Your task to perform on an android device: Empty the shopping cart on newegg.com. Search for "amazon basics triple a" on newegg.com, select the first entry, and add it to the cart. Image 0: 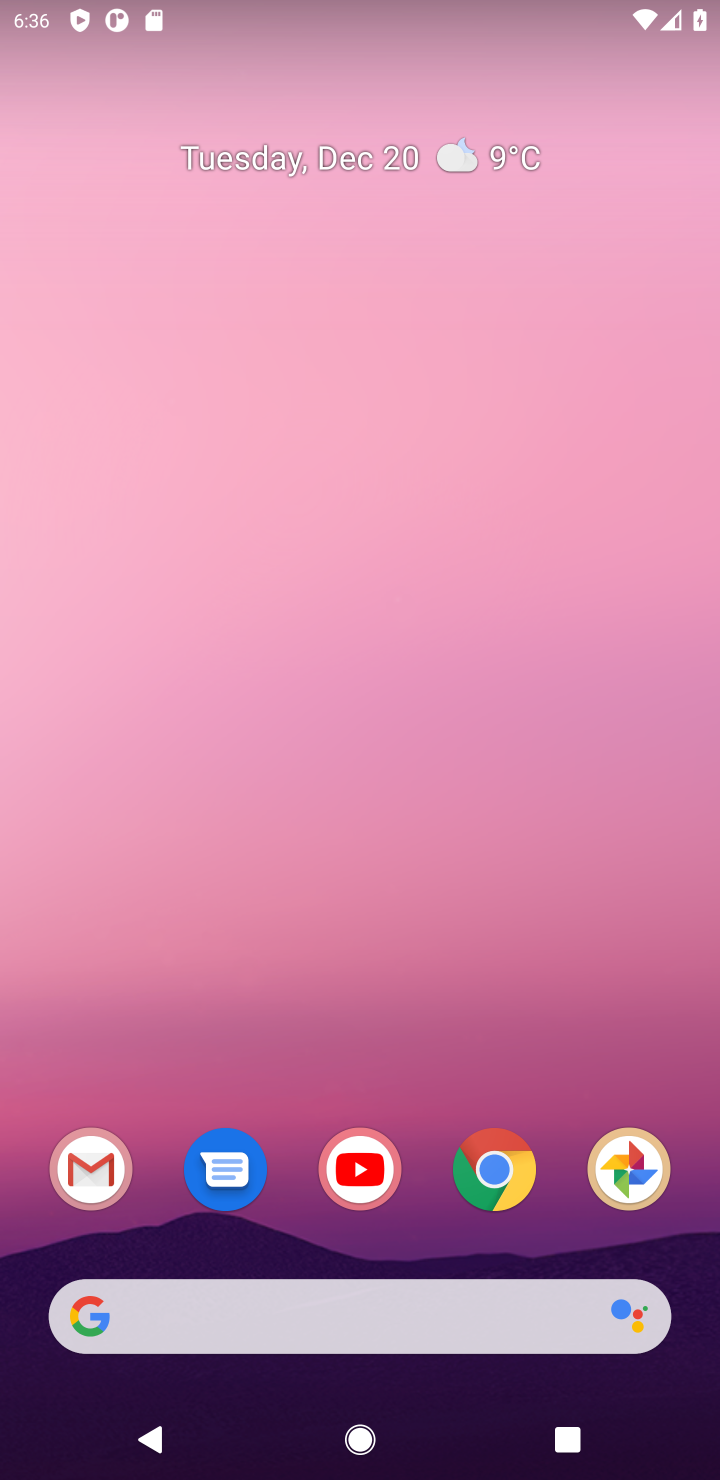
Step 0: click (384, 179)
Your task to perform on an android device: Empty the shopping cart on newegg.com. Search for "amazon basics triple a" on newegg.com, select the first entry, and add it to the cart. Image 1: 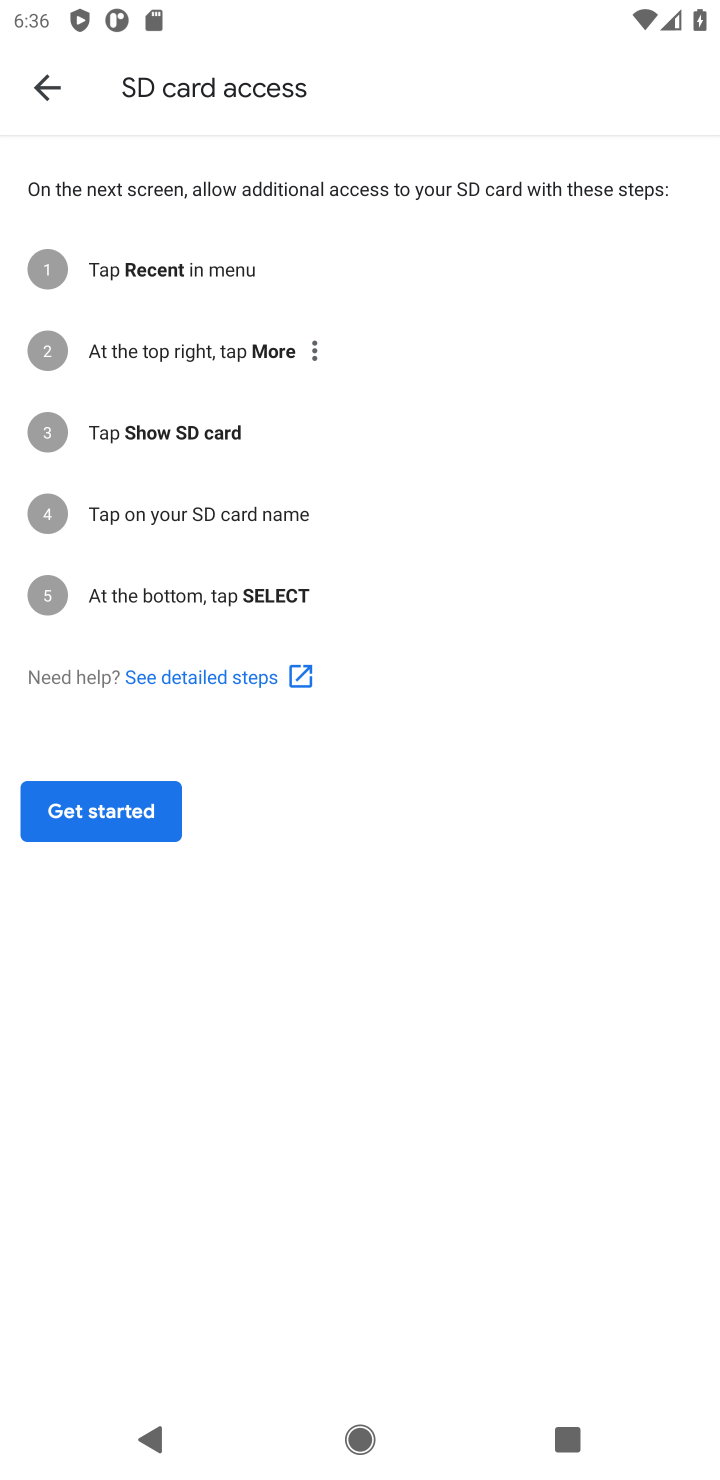
Step 1: press home button
Your task to perform on an android device: Empty the shopping cart on newegg.com. Search for "amazon basics triple a" on newegg.com, select the first entry, and add it to the cart. Image 2: 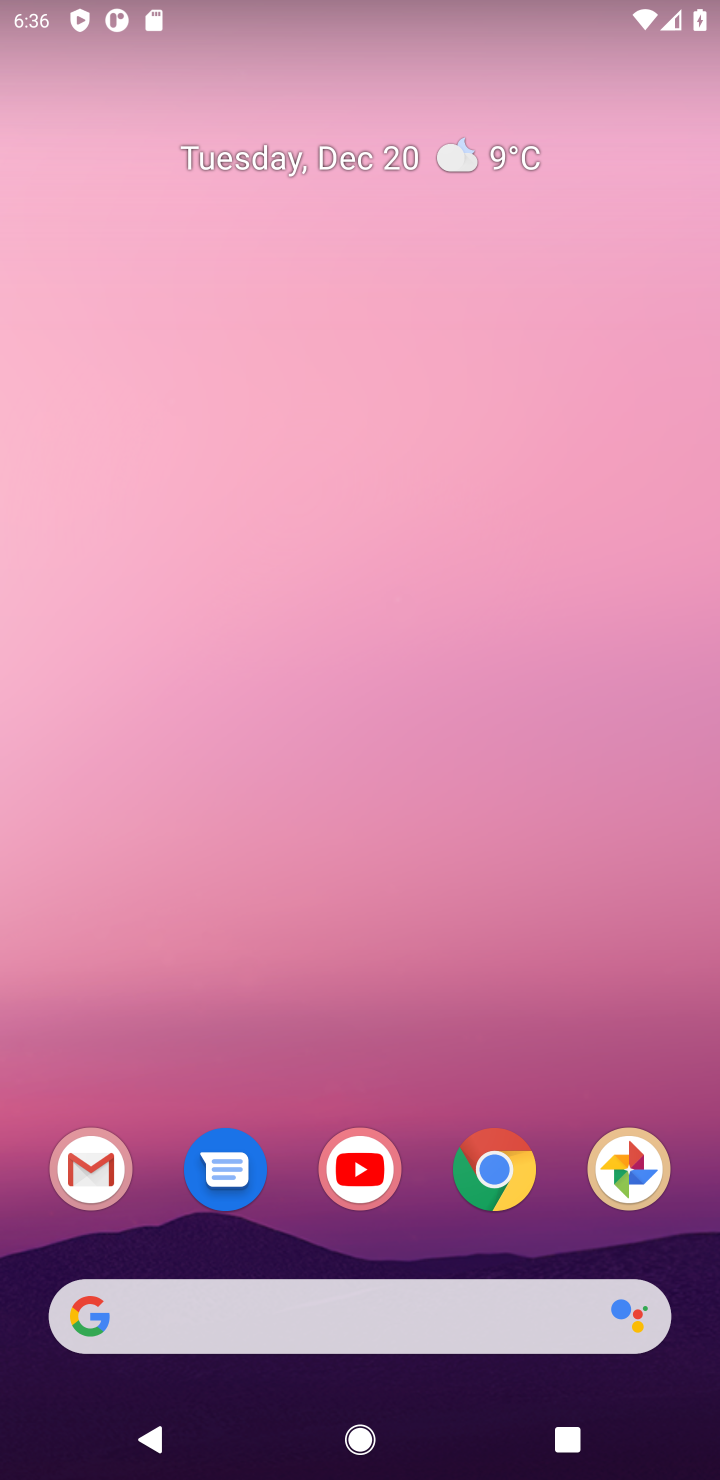
Step 2: click (452, 1294)
Your task to perform on an android device: Empty the shopping cart on newegg.com. Search for "amazon basics triple a" on newegg.com, select the first entry, and add it to the cart. Image 3: 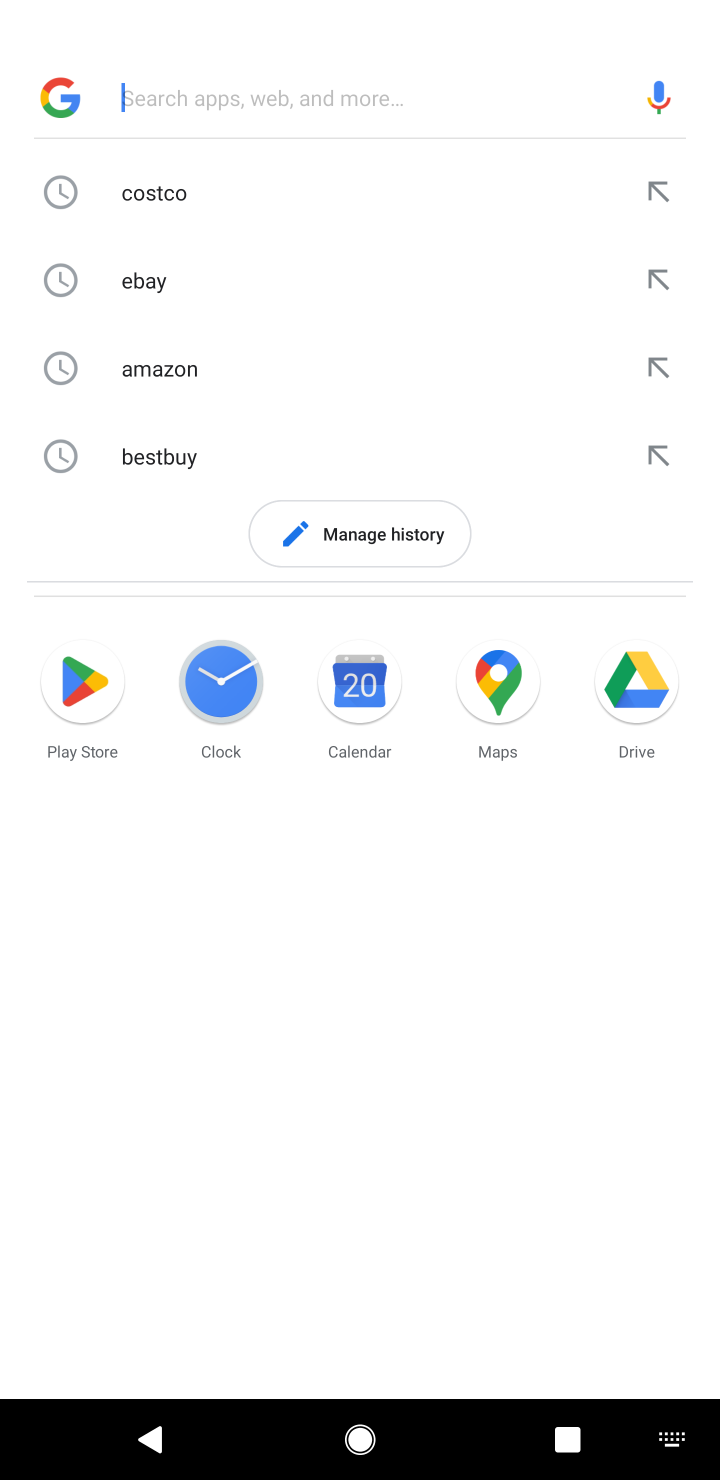
Step 3: type "newegg"
Your task to perform on an android device: Empty the shopping cart on newegg.com. Search for "amazon basics triple a" on newegg.com, select the first entry, and add it to the cart. Image 4: 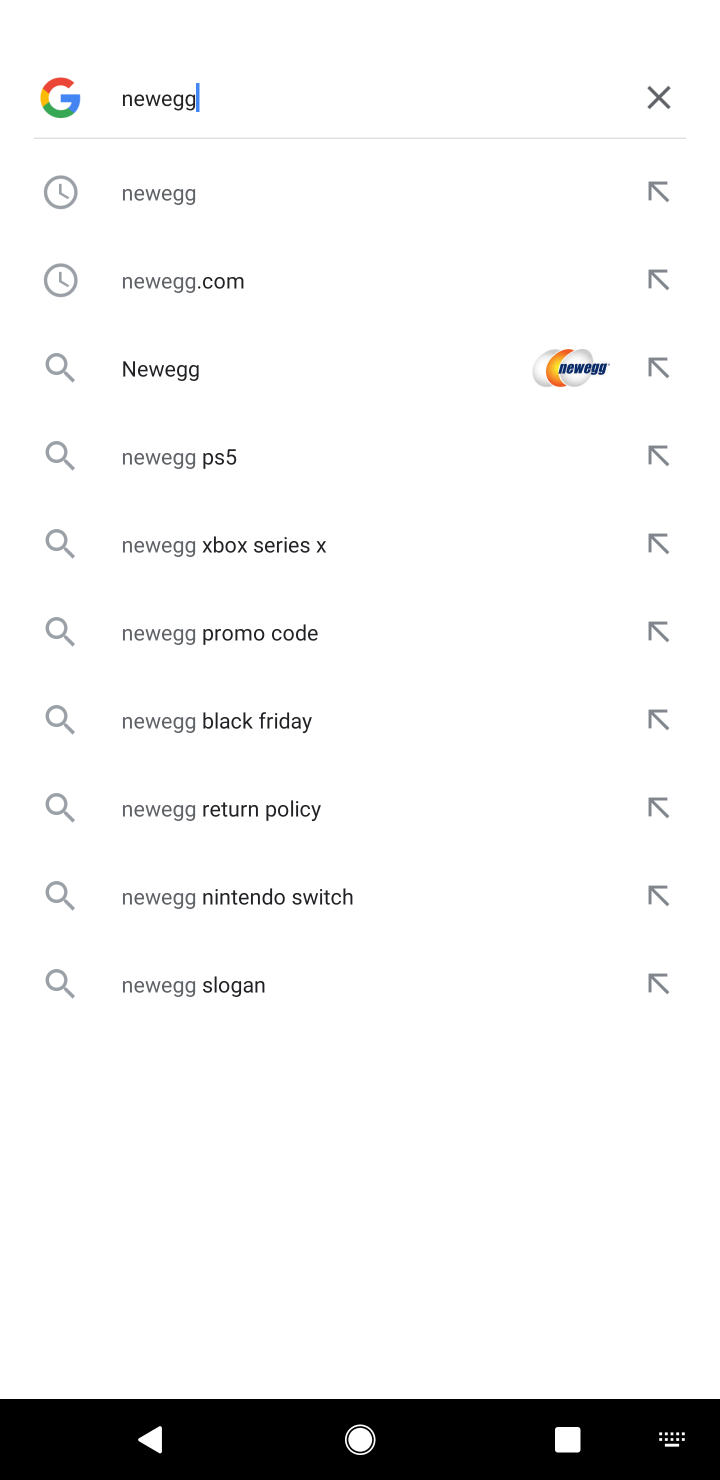
Step 4: click (156, 191)
Your task to perform on an android device: Empty the shopping cart on newegg.com. Search for "amazon basics triple a" on newegg.com, select the first entry, and add it to the cart. Image 5: 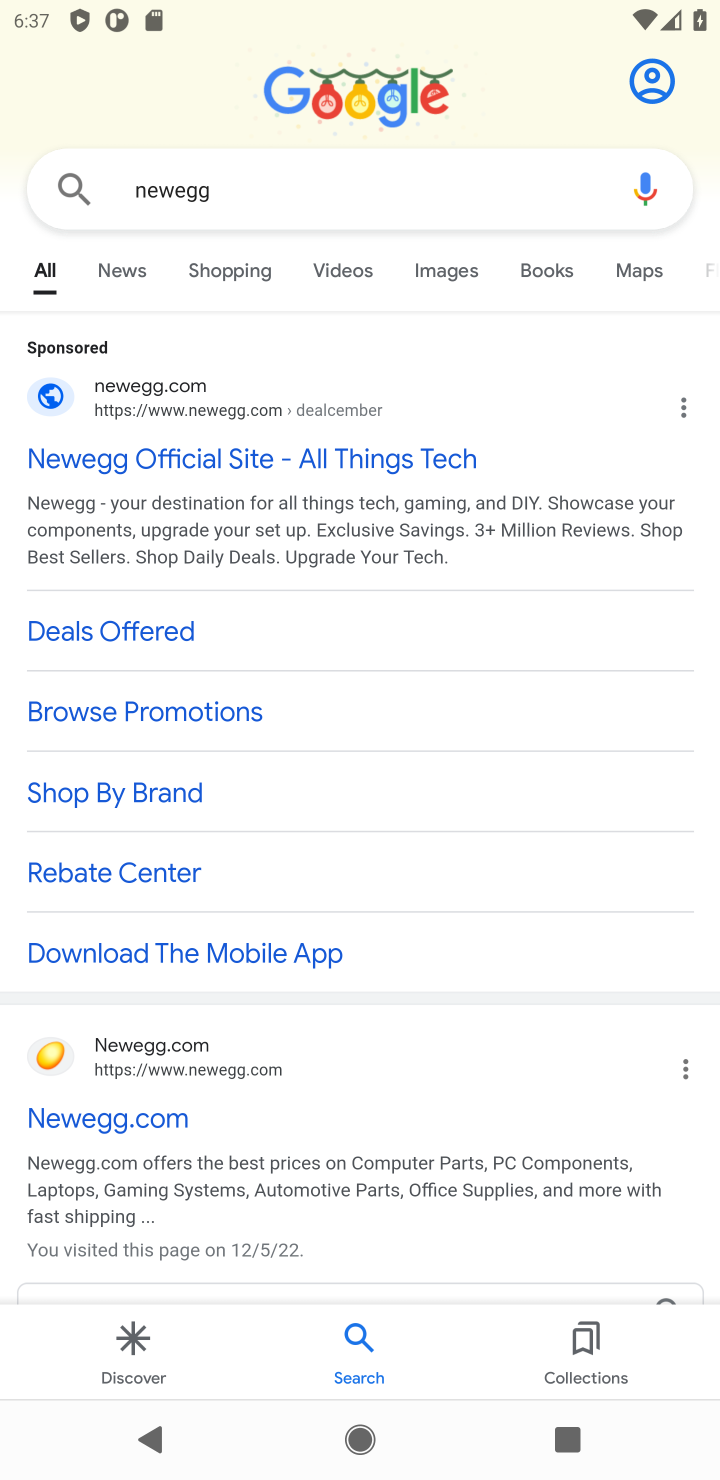
Step 5: click (232, 448)
Your task to perform on an android device: Empty the shopping cart on newegg.com. Search for "amazon basics triple a" on newegg.com, select the first entry, and add it to the cart. Image 6: 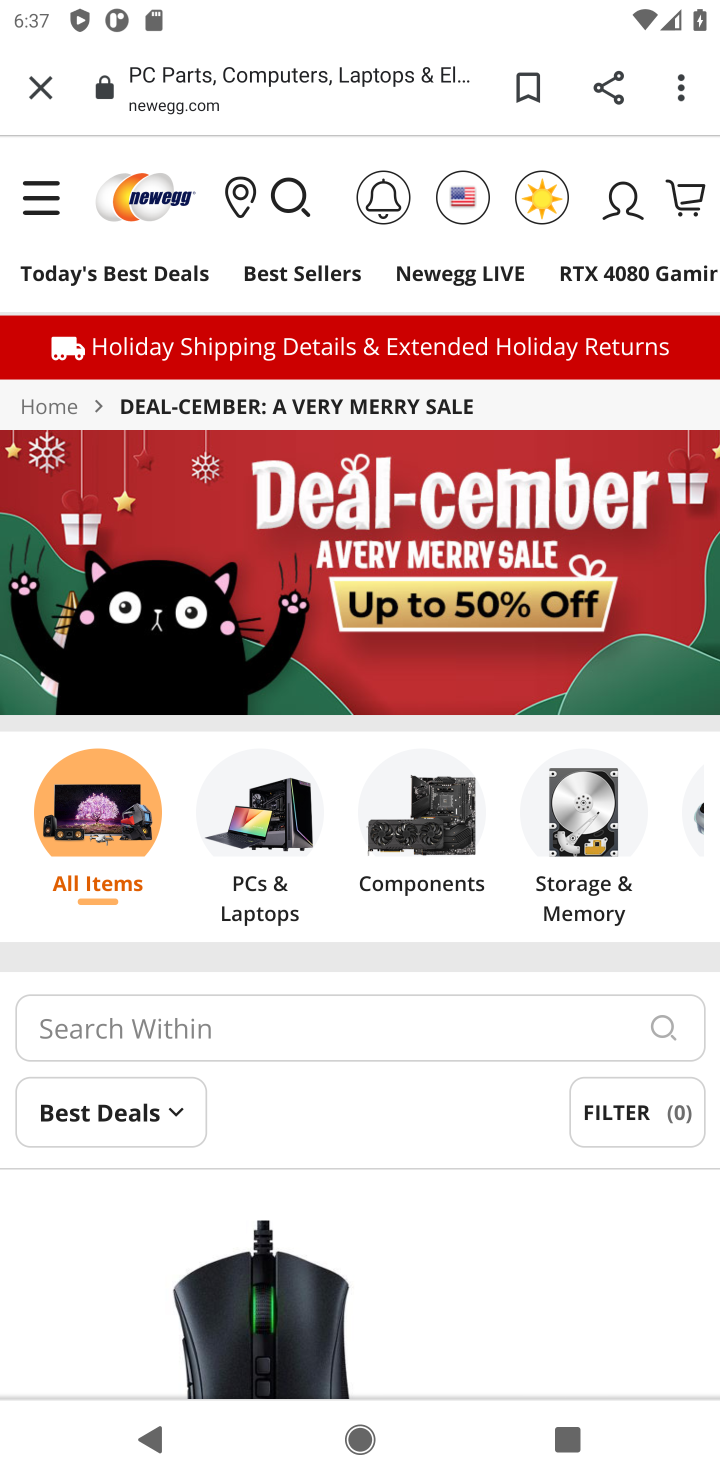
Step 6: click (361, 195)
Your task to perform on an android device: Empty the shopping cart on newegg.com. Search for "amazon basics triple a" on newegg.com, select the first entry, and add it to the cart. Image 7: 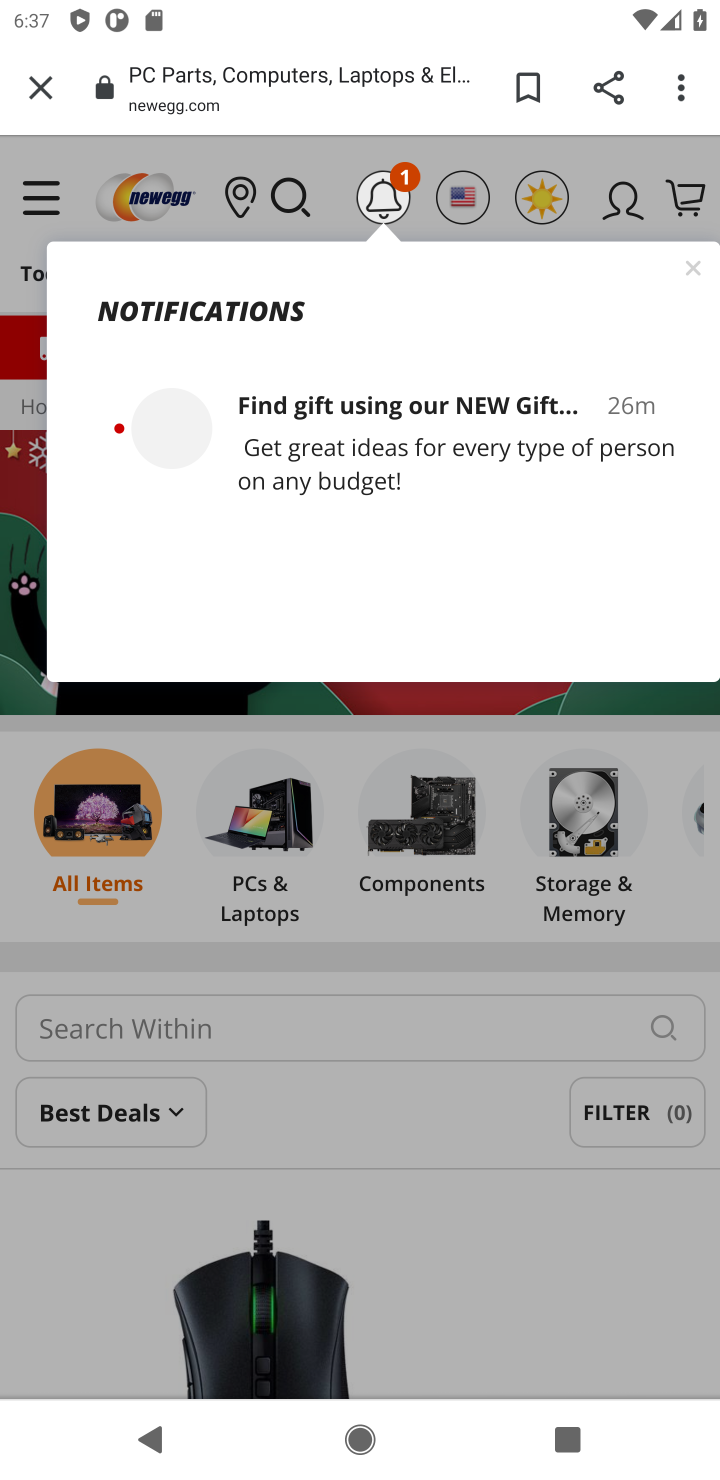
Step 7: click (296, 185)
Your task to perform on an android device: Empty the shopping cart on newegg.com. Search for "amazon basics triple a" on newegg.com, select the first entry, and add it to the cart. Image 8: 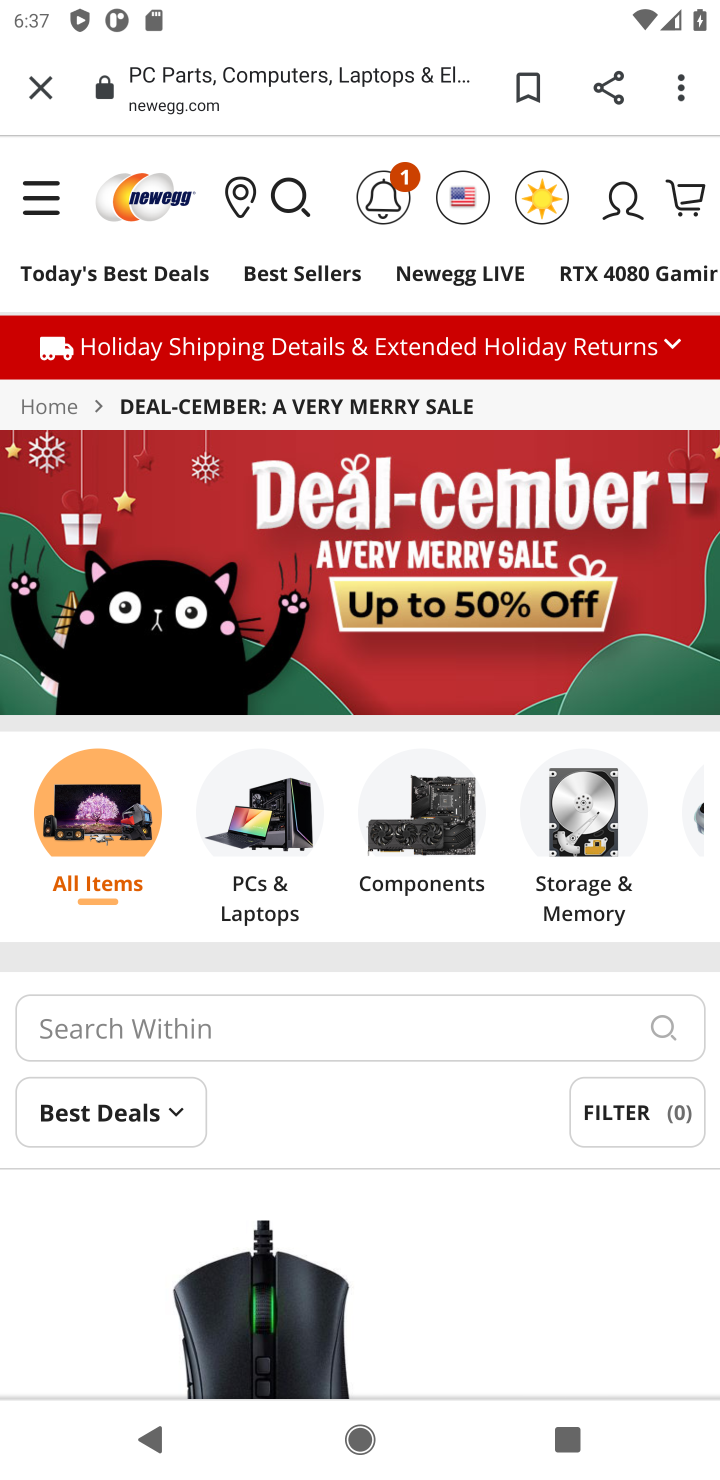
Step 8: click (296, 185)
Your task to perform on an android device: Empty the shopping cart on newegg.com. Search for "amazon basics triple a" on newegg.com, select the first entry, and add it to the cart. Image 9: 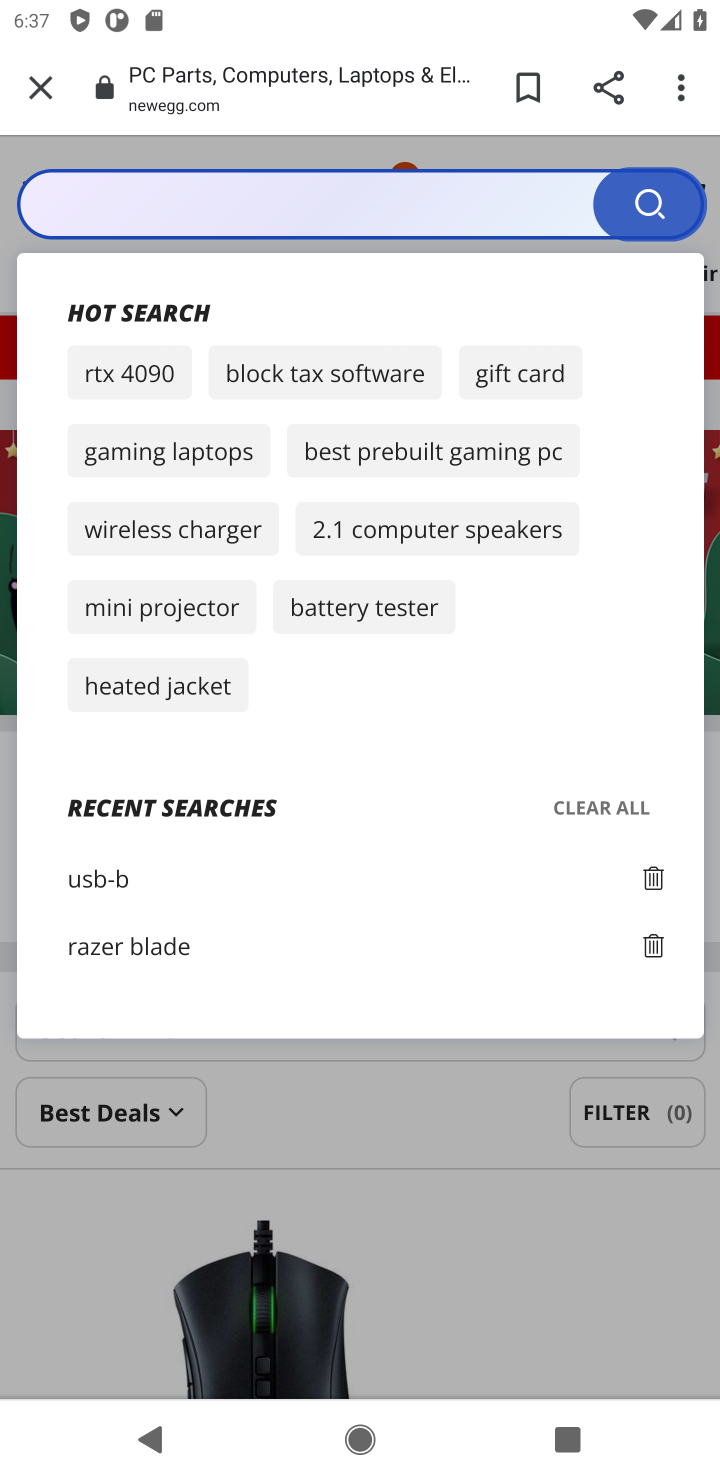
Step 9: type "amazon basics triple a"
Your task to perform on an android device: Empty the shopping cart on newegg.com. Search for "amazon basics triple a" on newegg.com, select the first entry, and add it to the cart. Image 10: 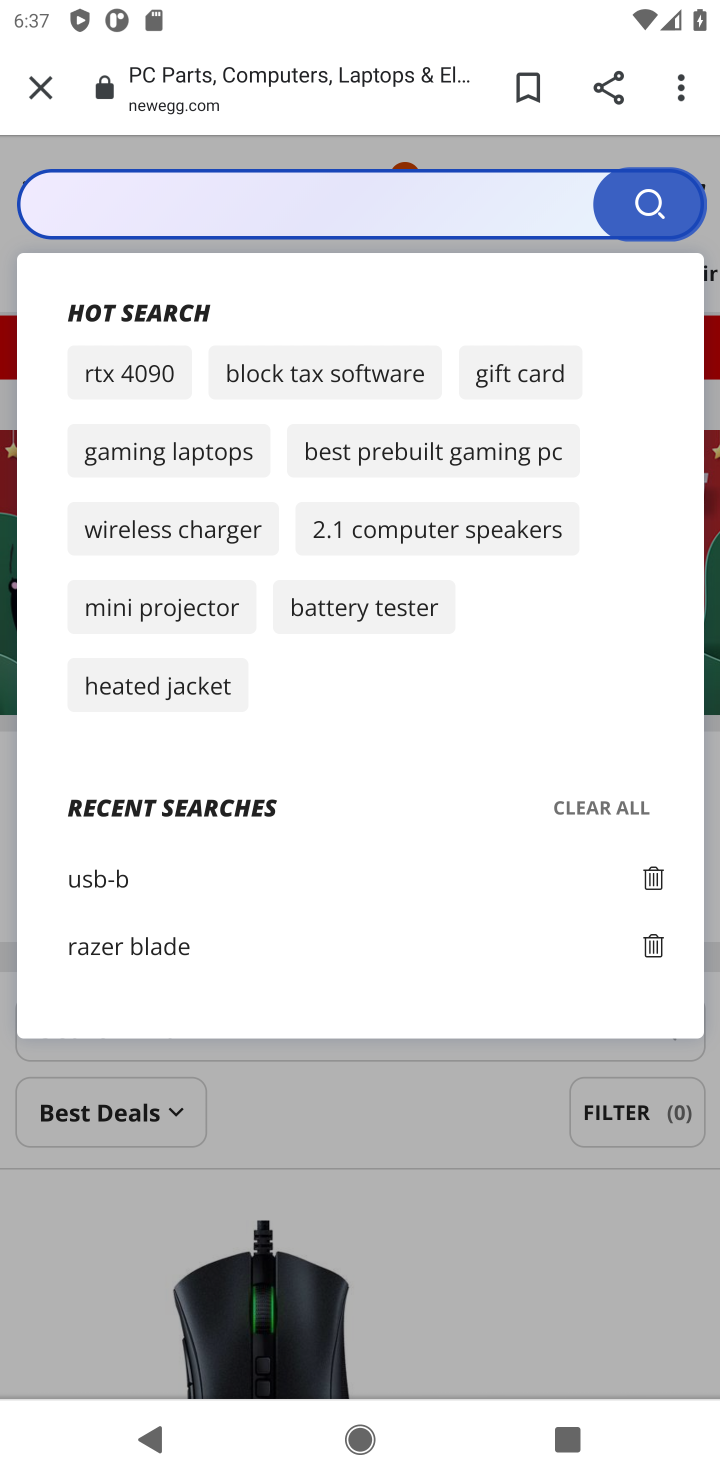
Step 10: click (317, 193)
Your task to perform on an android device: Empty the shopping cart on newegg.com. Search for "amazon basics triple a" on newegg.com, select the first entry, and add it to the cart. Image 11: 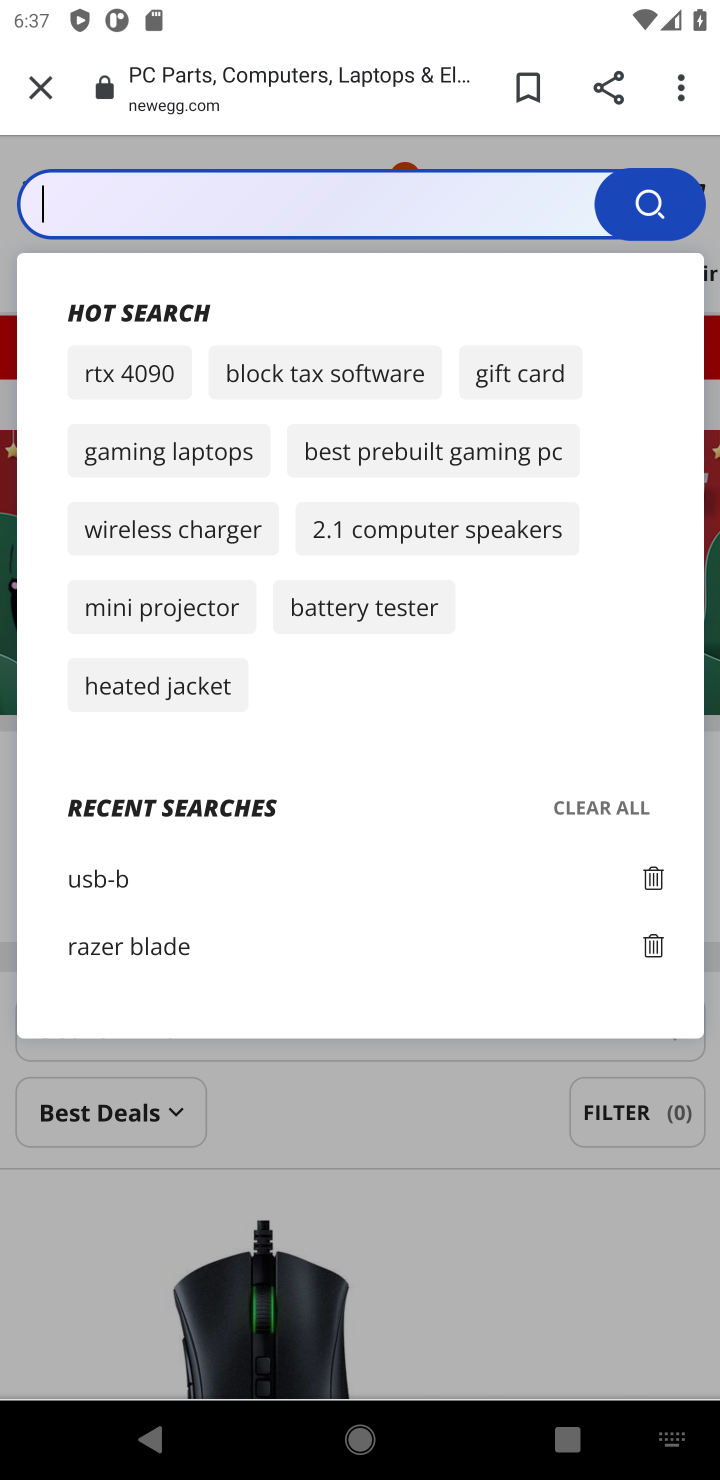
Step 11: click (317, 193)
Your task to perform on an android device: Empty the shopping cart on newegg.com. Search for "amazon basics triple a" on newegg.com, select the first entry, and add it to the cart. Image 12: 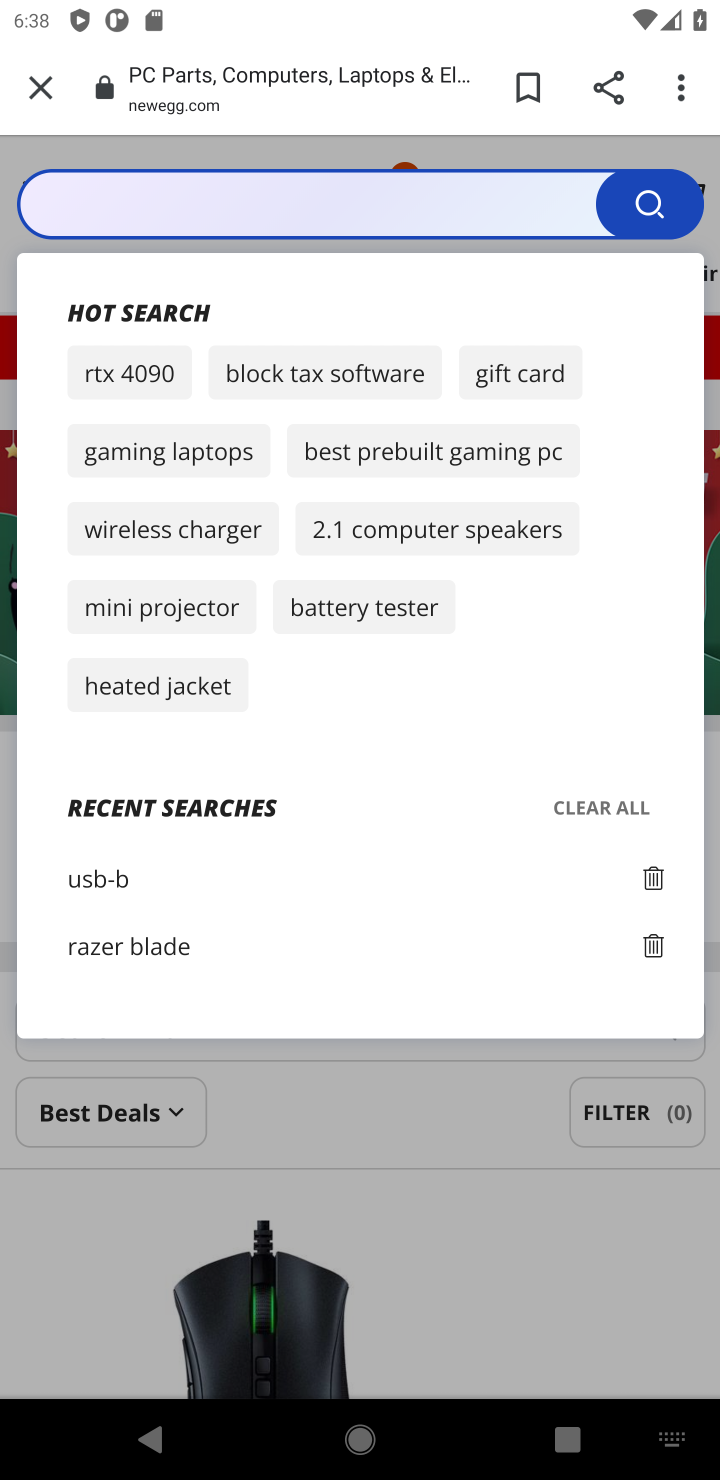
Step 12: type "amazon basics triple a"
Your task to perform on an android device: Empty the shopping cart on newegg.com. Search for "amazon basics triple a" on newegg.com, select the first entry, and add it to the cart. Image 13: 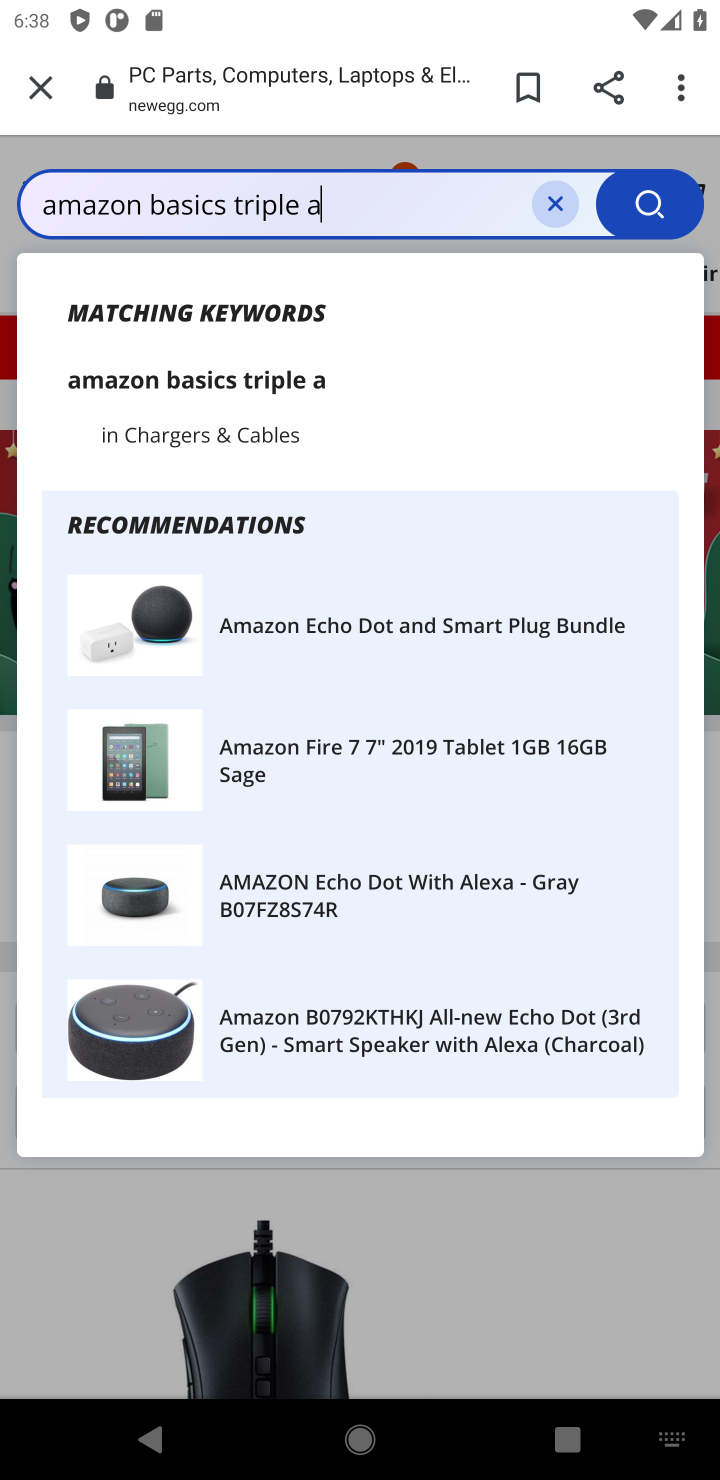
Step 13: click (652, 205)
Your task to perform on an android device: Empty the shopping cart on newegg.com. Search for "amazon basics triple a" on newegg.com, select the first entry, and add it to the cart. Image 14: 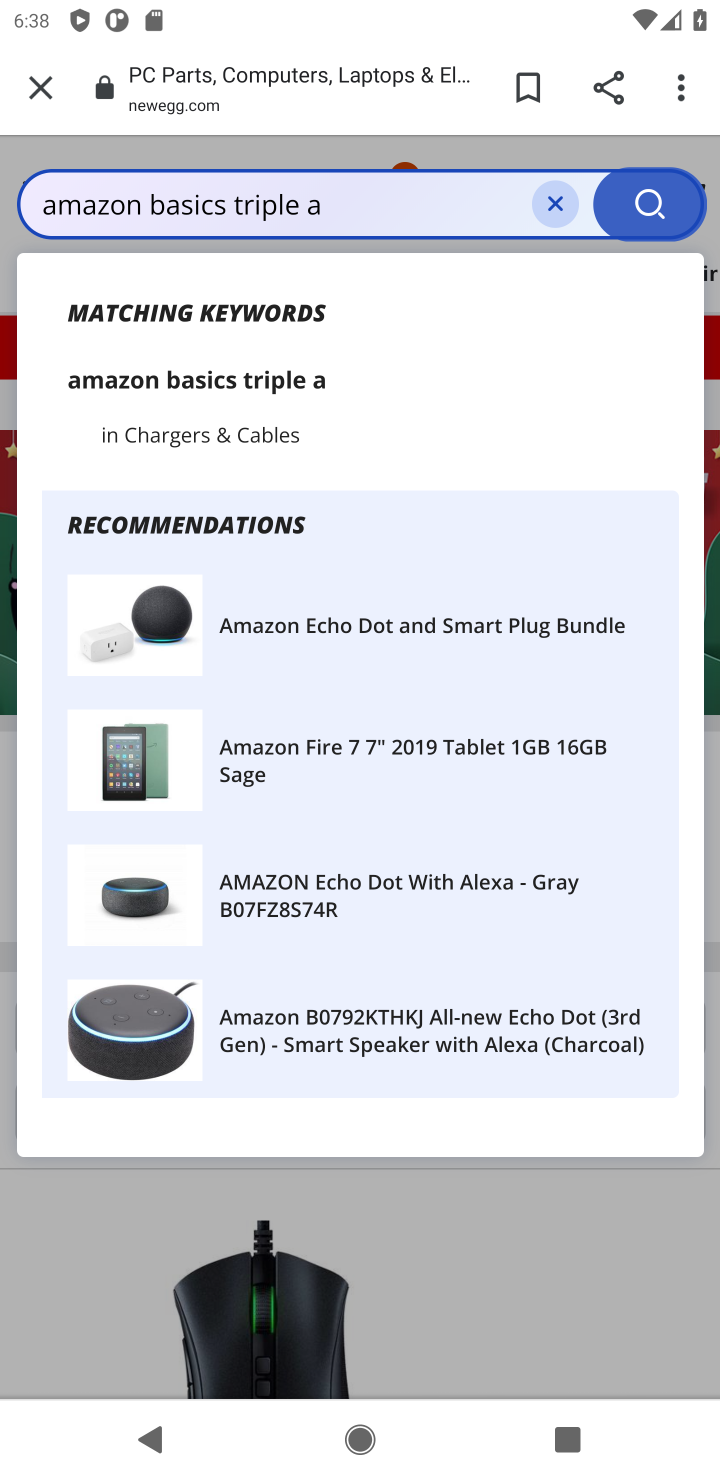
Step 14: click (652, 205)
Your task to perform on an android device: Empty the shopping cart on newegg.com. Search for "amazon basics triple a" on newegg.com, select the first entry, and add it to the cart. Image 15: 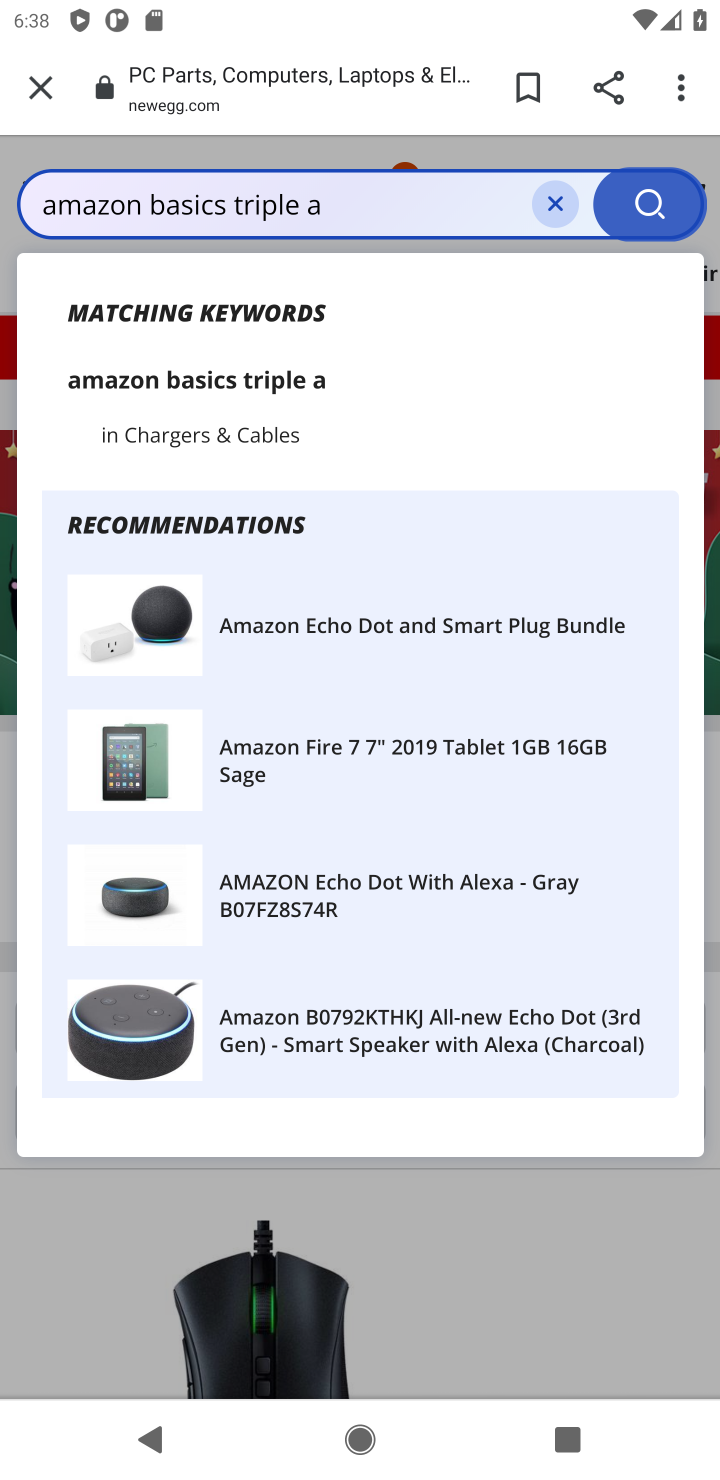
Step 15: task complete